Your task to perform on an android device: turn on priority inbox in the gmail app Image 0: 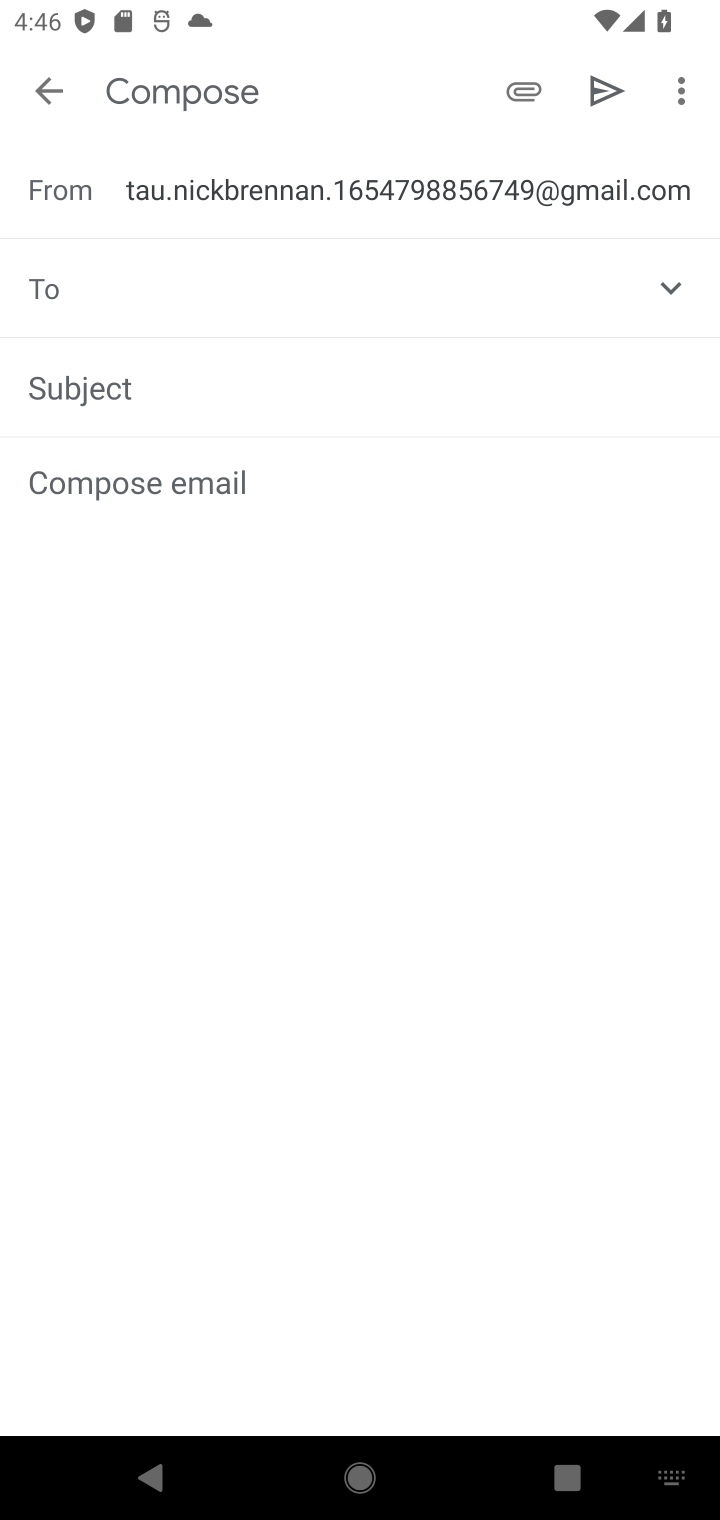
Step 0: press home button
Your task to perform on an android device: turn on priority inbox in the gmail app Image 1: 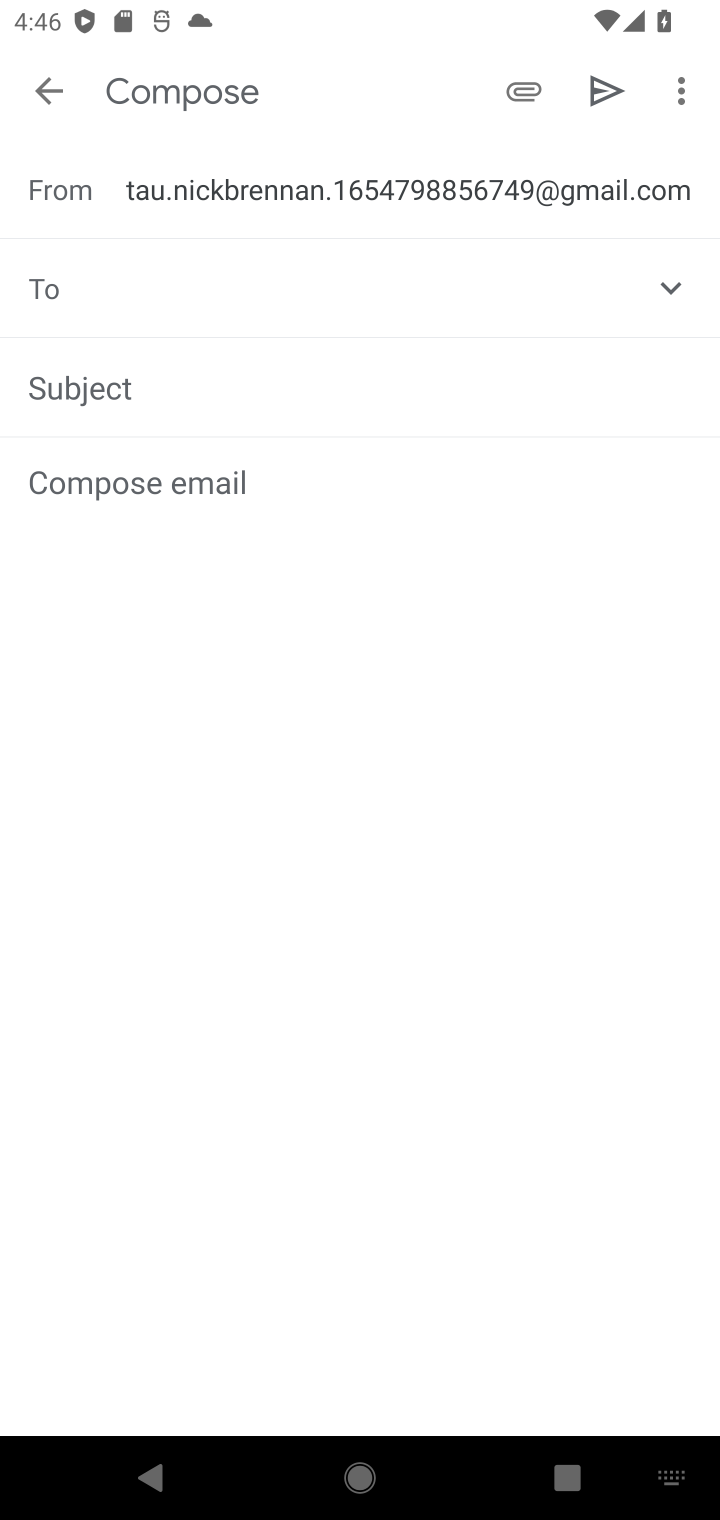
Step 1: press home button
Your task to perform on an android device: turn on priority inbox in the gmail app Image 2: 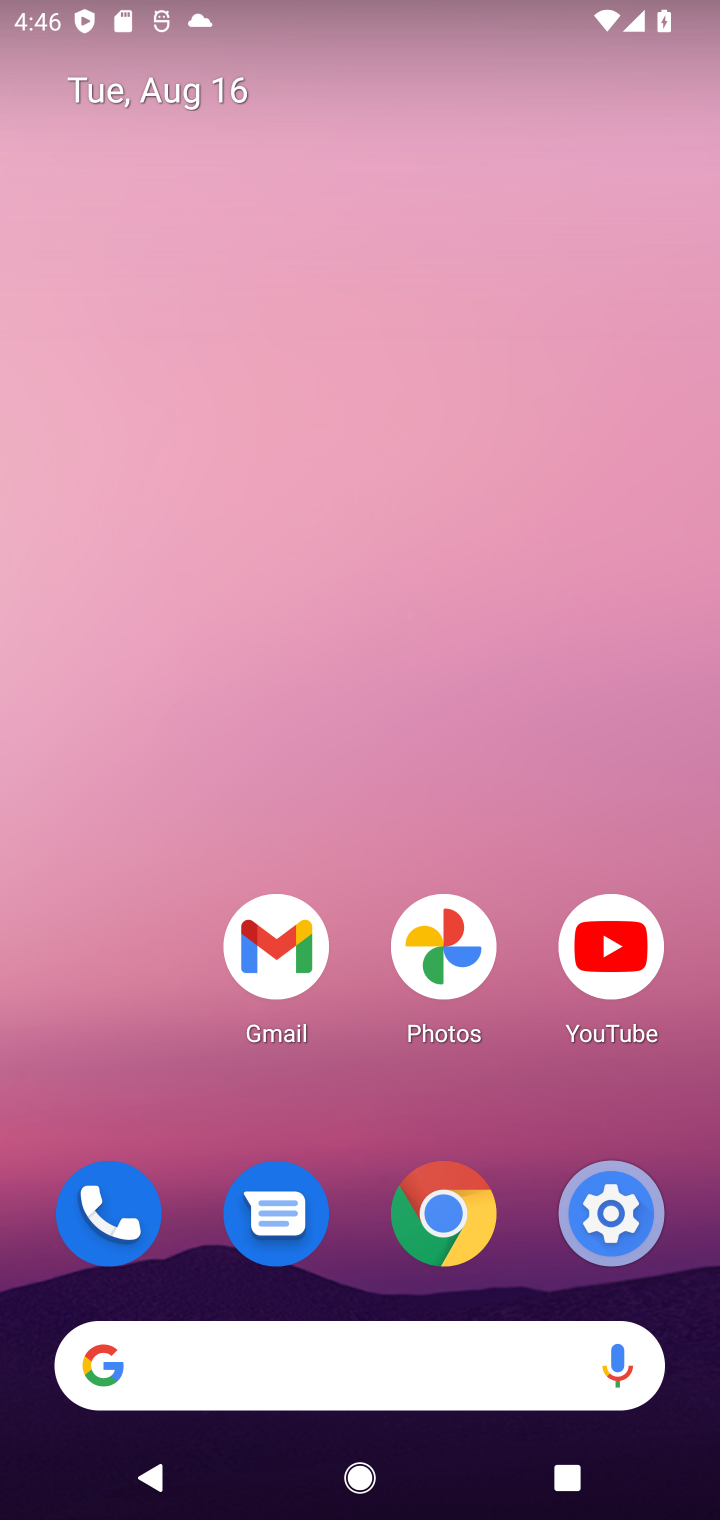
Step 2: drag from (378, 1055) to (429, 9)
Your task to perform on an android device: turn on priority inbox in the gmail app Image 3: 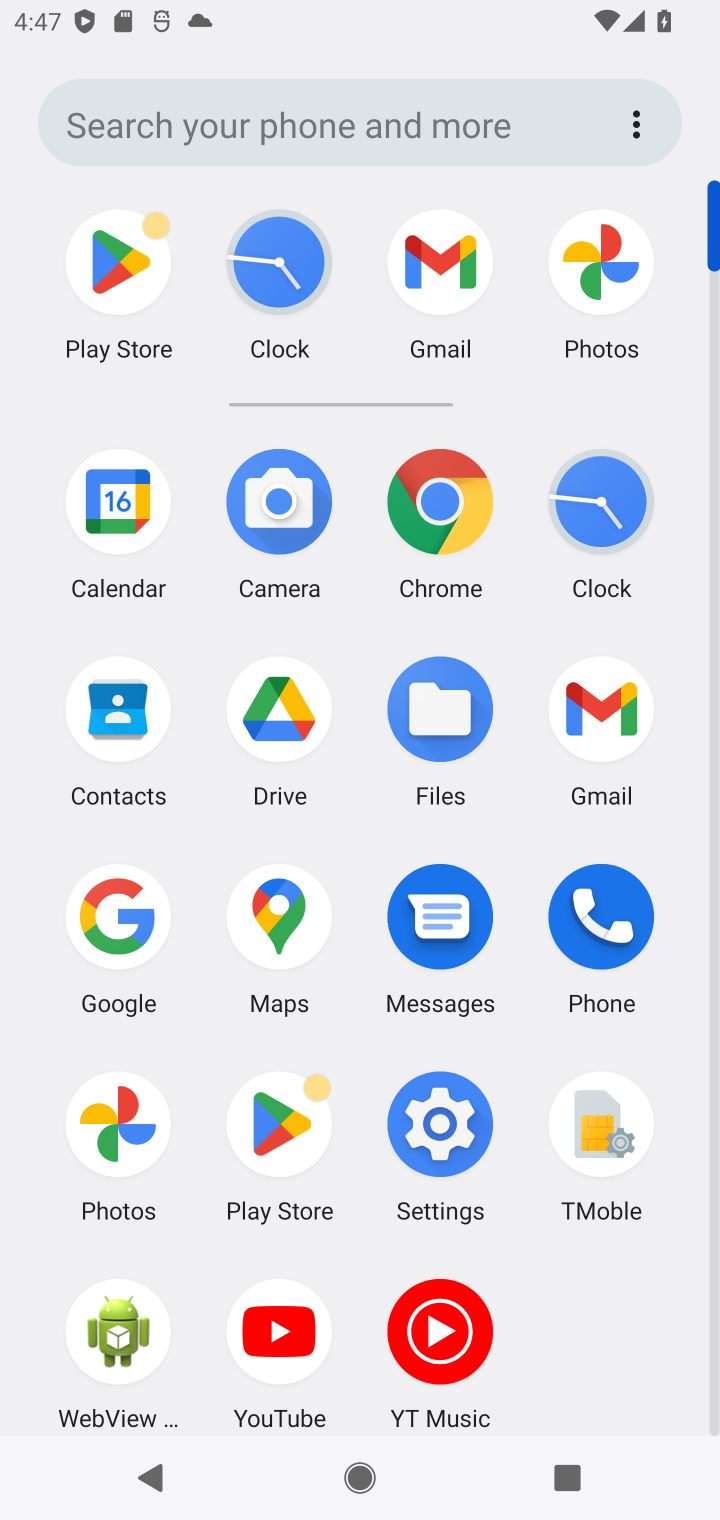
Step 3: drag from (600, 745) to (41, 1339)
Your task to perform on an android device: turn on priority inbox in the gmail app Image 4: 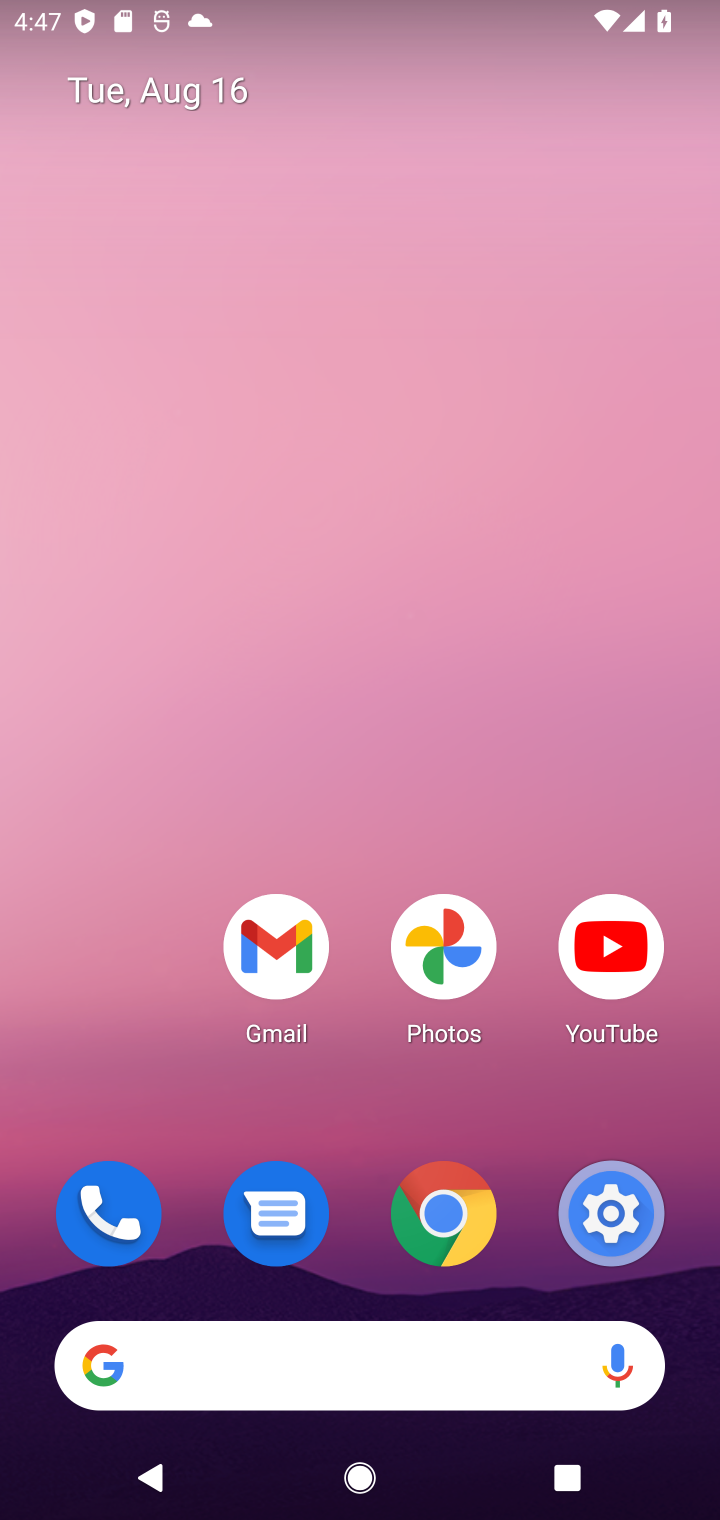
Step 4: drag from (335, 1099) to (469, 65)
Your task to perform on an android device: turn on priority inbox in the gmail app Image 5: 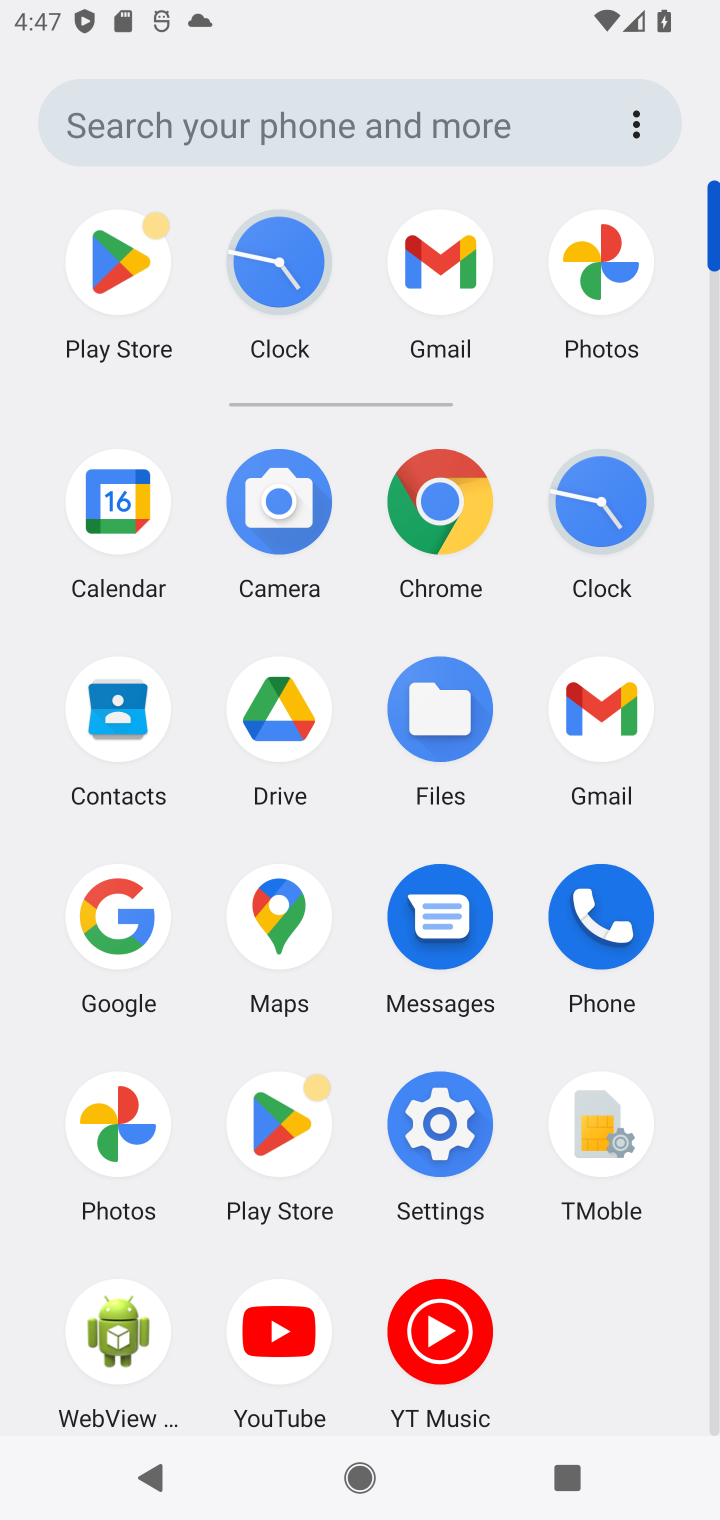
Step 5: click (596, 721)
Your task to perform on an android device: turn on priority inbox in the gmail app Image 6: 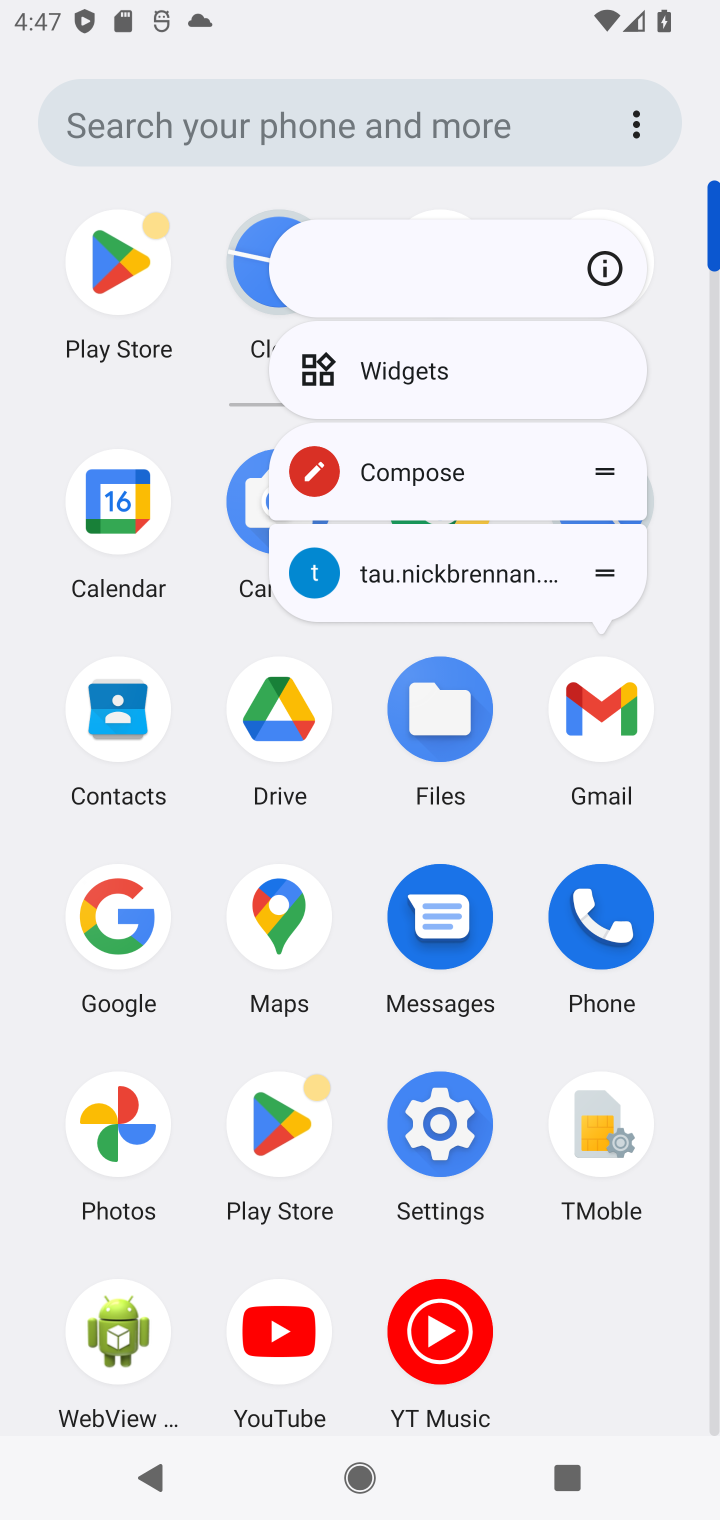
Step 6: click (597, 718)
Your task to perform on an android device: turn on priority inbox in the gmail app Image 7: 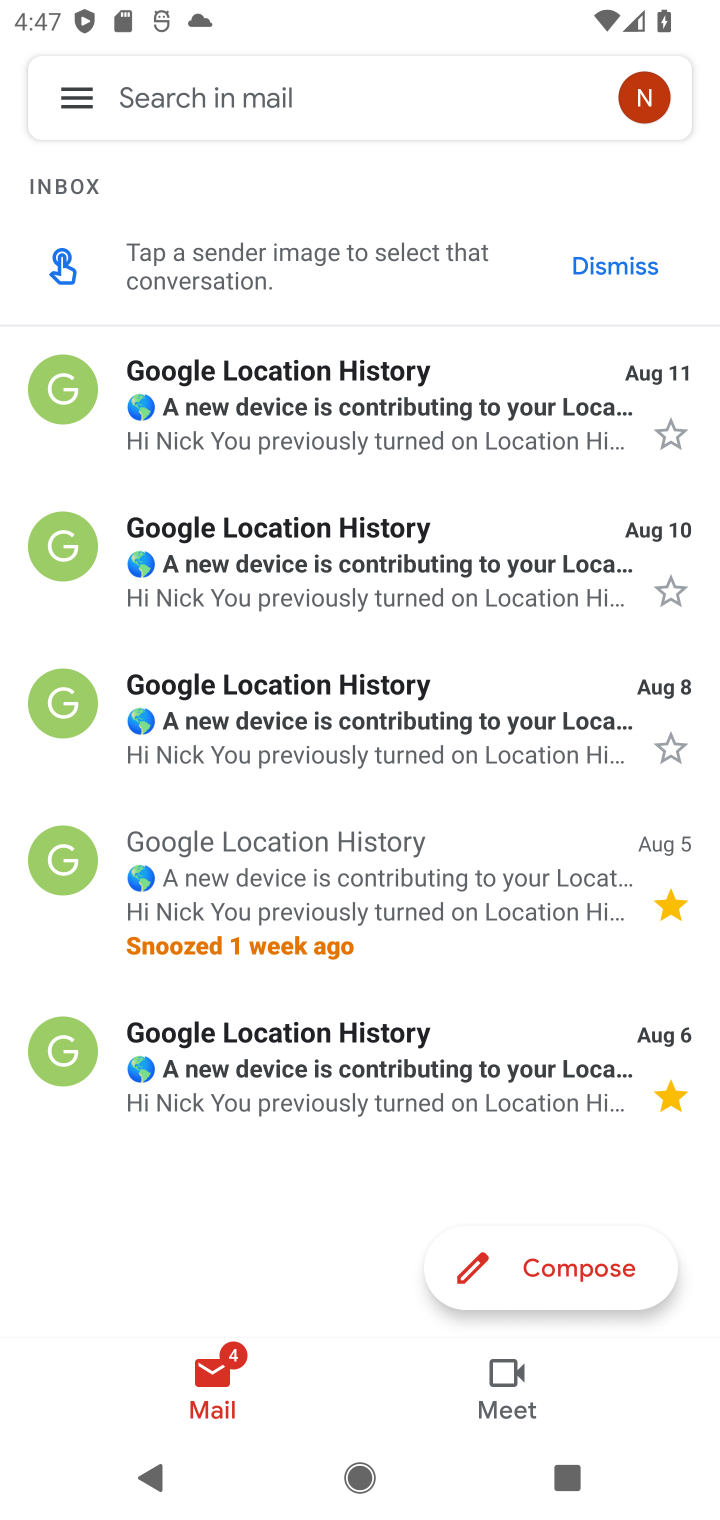
Step 7: click (57, 89)
Your task to perform on an android device: turn on priority inbox in the gmail app Image 8: 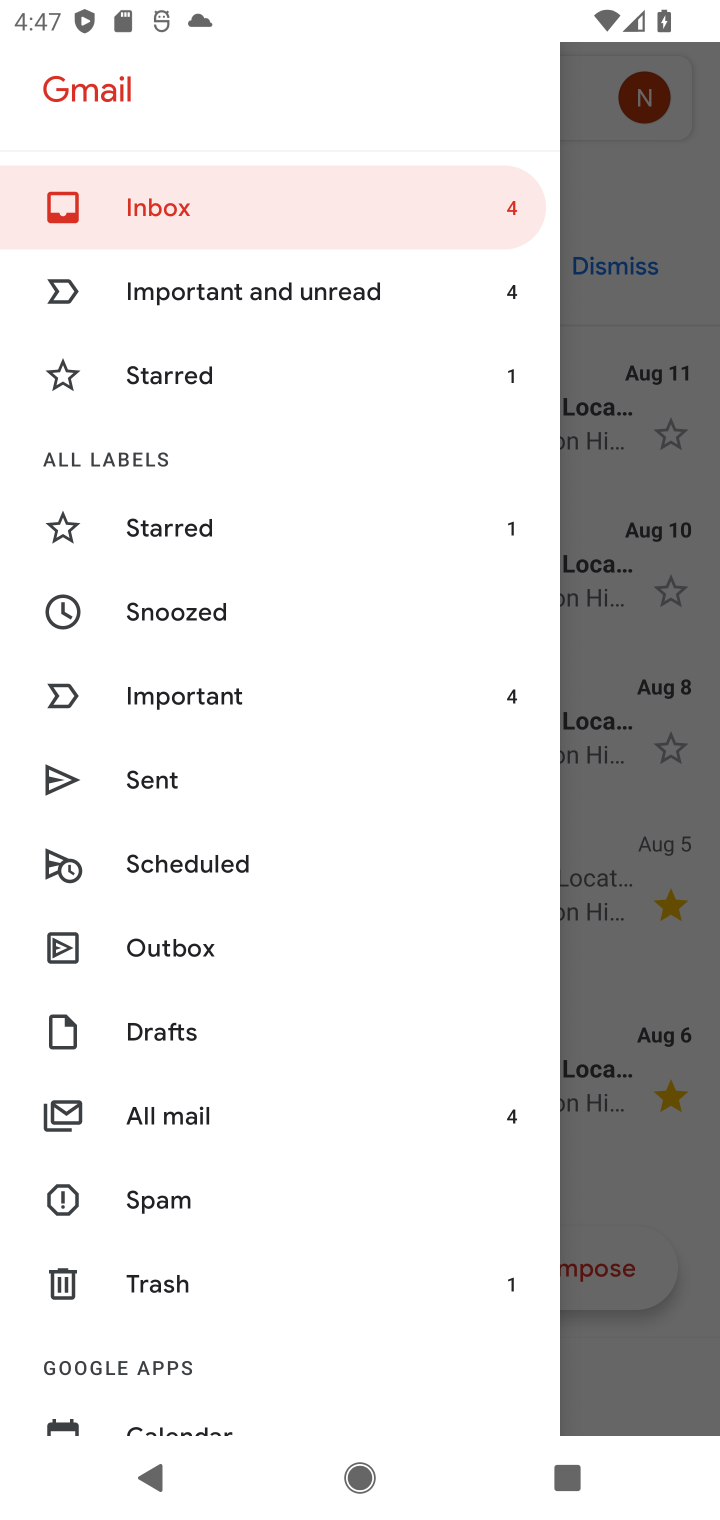
Step 8: drag from (289, 1355) to (391, 469)
Your task to perform on an android device: turn on priority inbox in the gmail app Image 9: 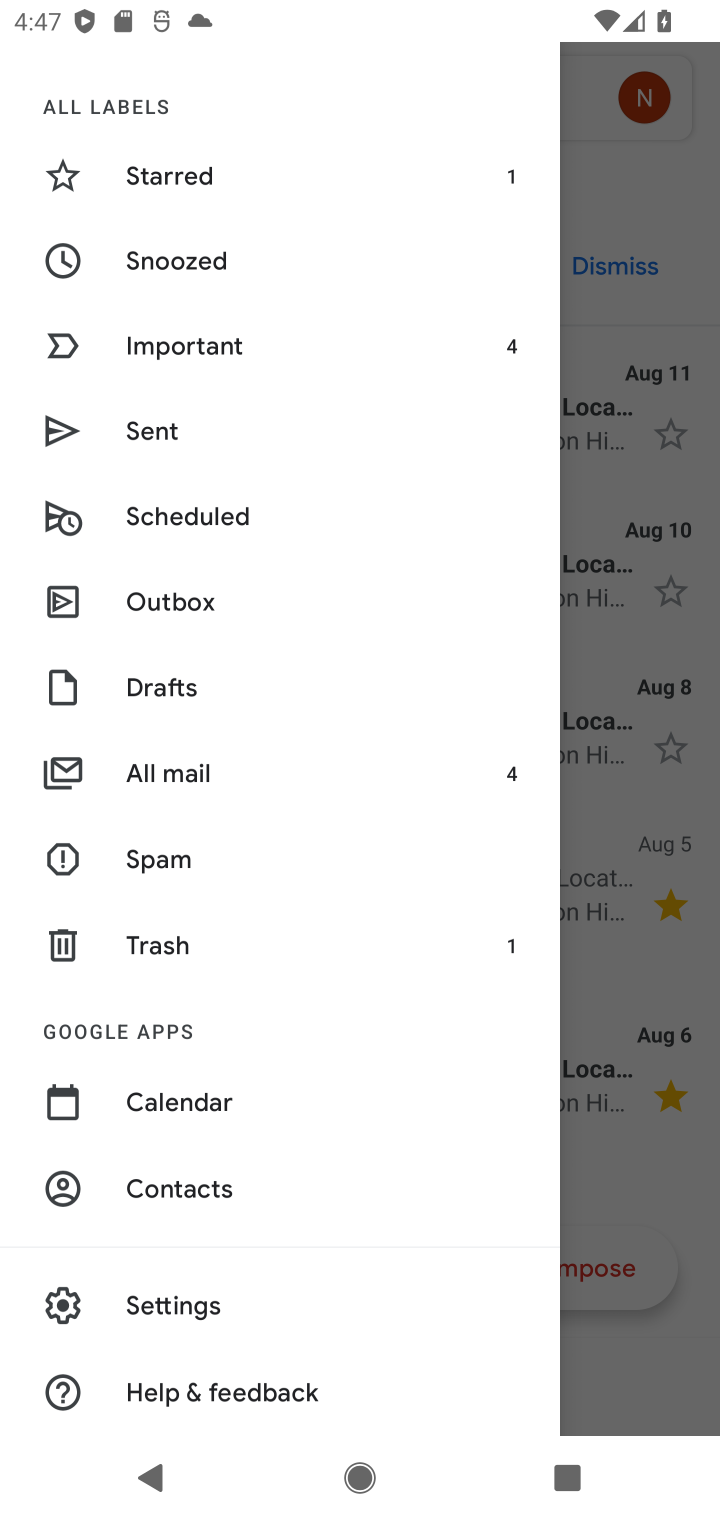
Step 9: click (191, 1317)
Your task to perform on an android device: turn on priority inbox in the gmail app Image 10: 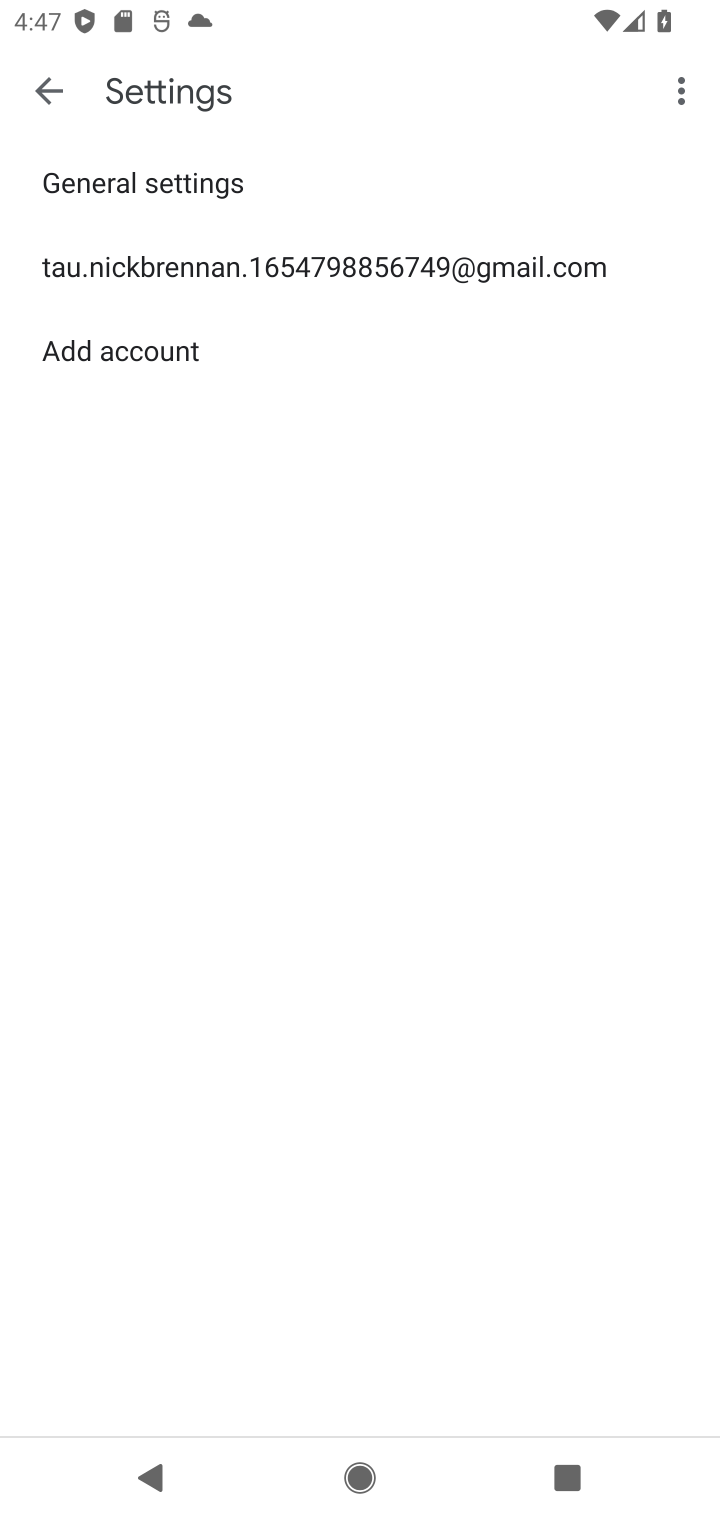
Step 10: click (209, 282)
Your task to perform on an android device: turn on priority inbox in the gmail app Image 11: 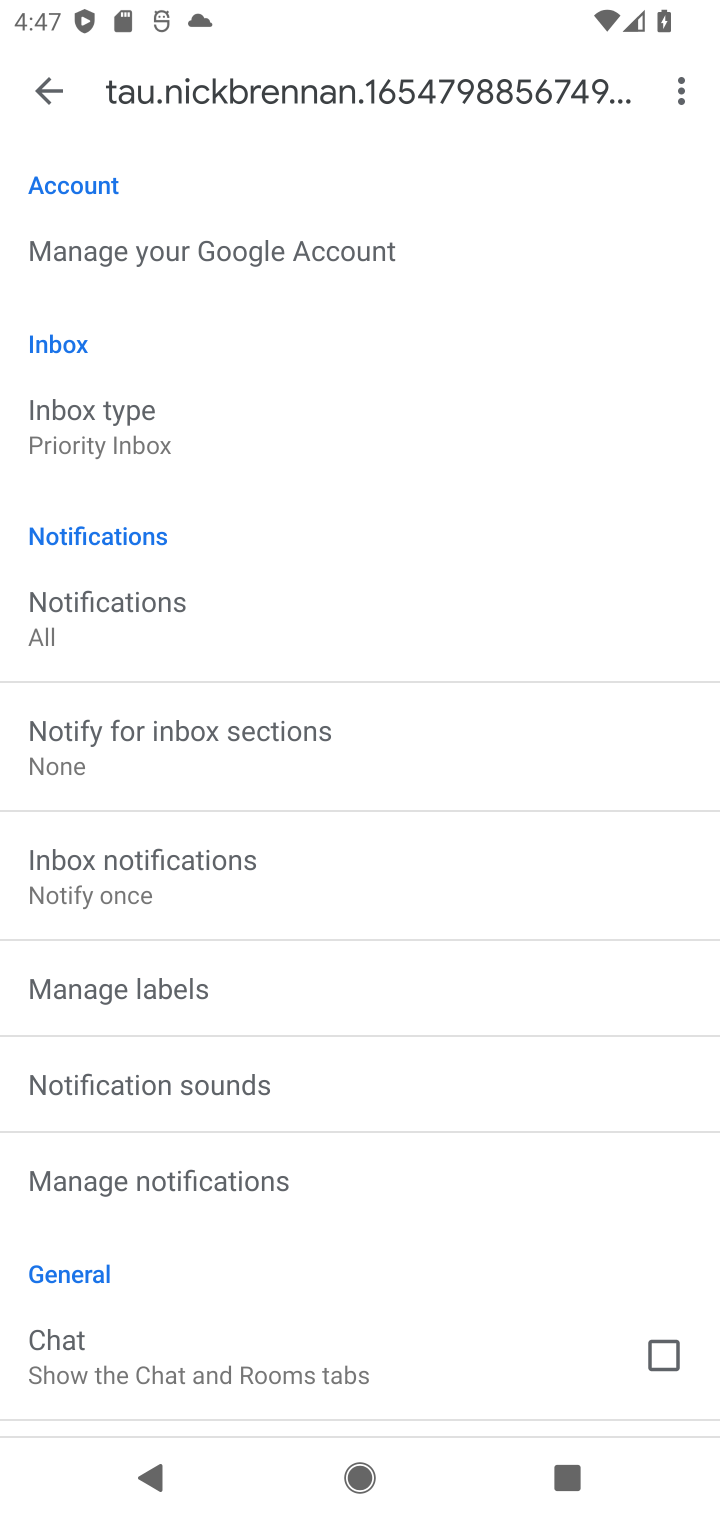
Step 11: click (79, 424)
Your task to perform on an android device: turn on priority inbox in the gmail app Image 12: 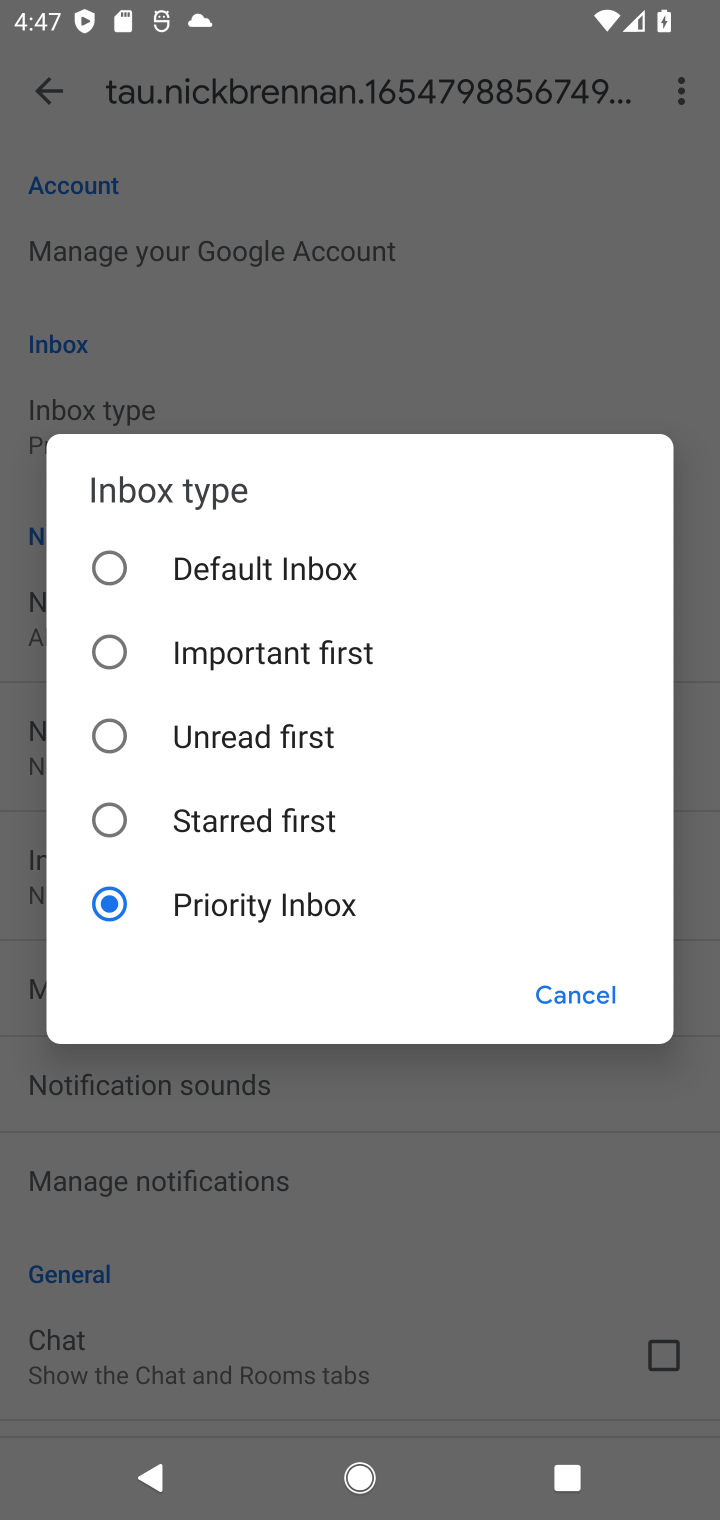
Step 12: task complete